Your task to perform on an android device: toggle pop-ups in chrome Image 0: 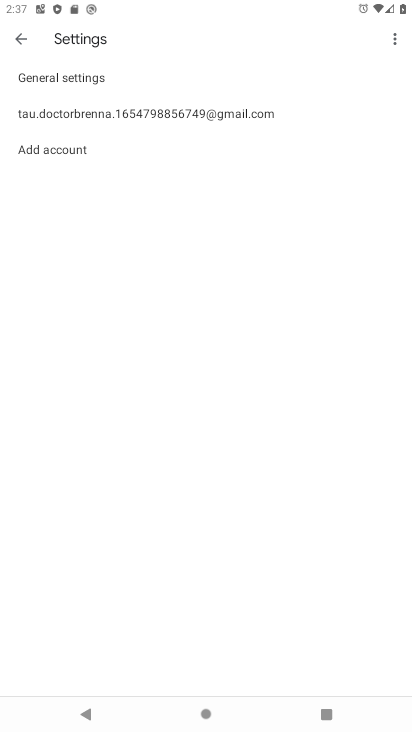
Step 0: press home button
Your task to perform on an android device: toggle pop-ups in chrome Image 1: 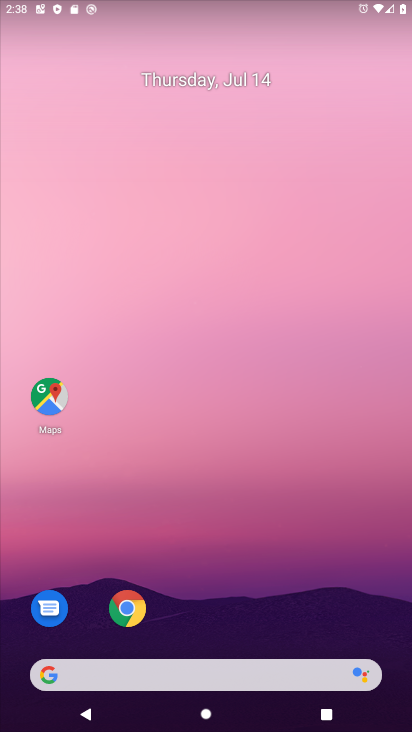
Step 1: click (131, 608)
Your task to perform on an android device: toggle pop-ups in chrome Image 2: 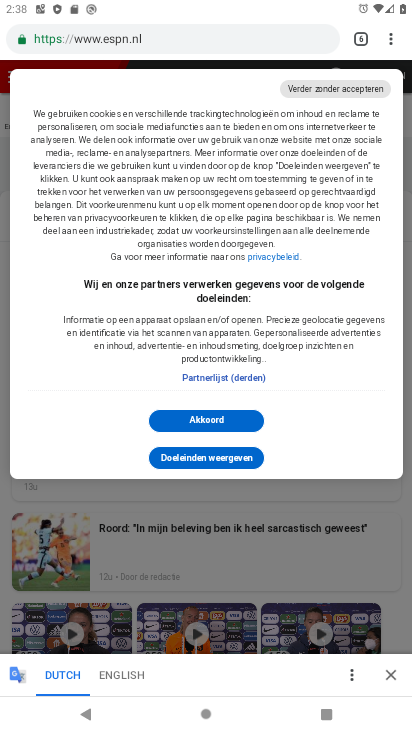
Step 2: click (390, 41)
Your task to perform on an android device: toggle pop-ups in chrome Image 3: 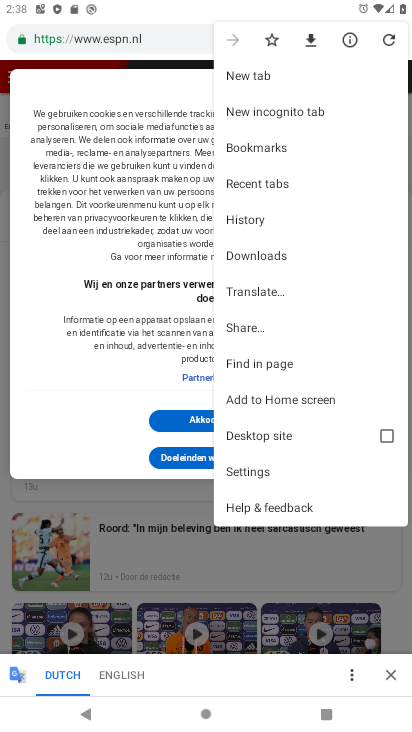
Step 3: click (247, 469)
Your task to perform on an android device: toggle pop-ups in chrome Image 4: 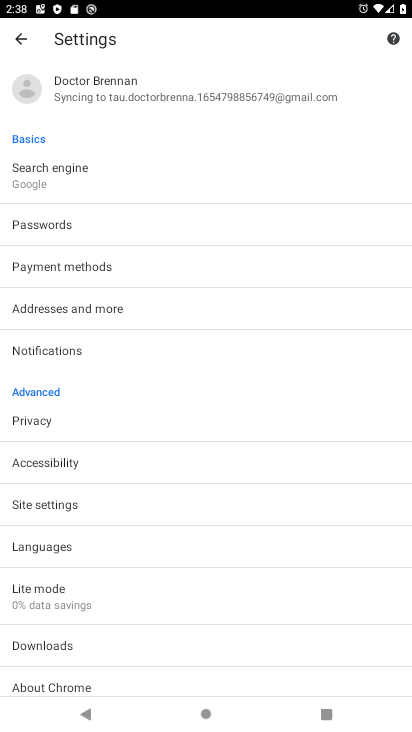
Step 4: click (53, 502)
Your task to perform on an android device: toggle pop-ups in chrome Image 5: 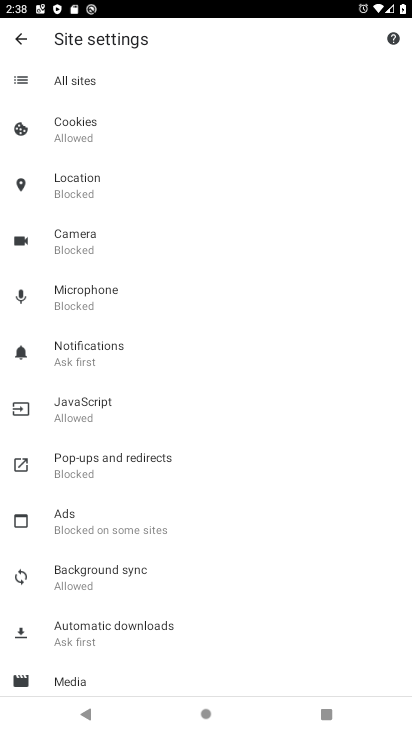
Step 5: click (81, 459)
Your task to perform on an android device: toggle pop-ups in chrome Image 6: 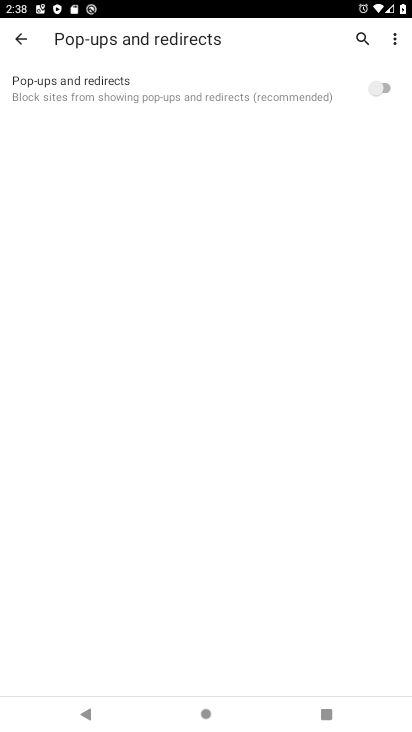
Step 6: click (383, 89)
Your task to perform on an android device: toggle pop-ups in chrome Image 7: 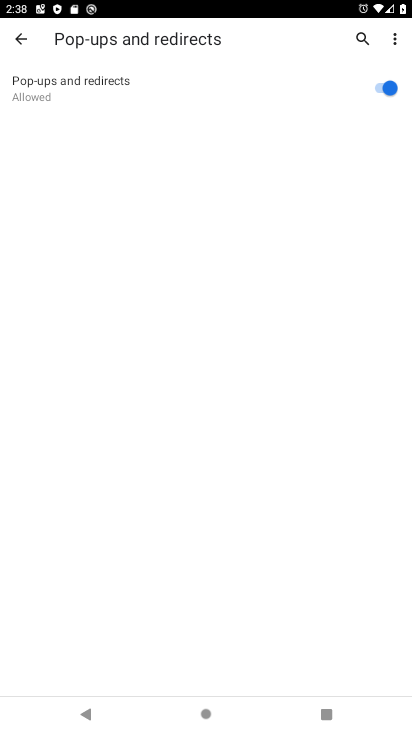
Step 7: task complete